Your task to perform on an android device: check storage Image 0: 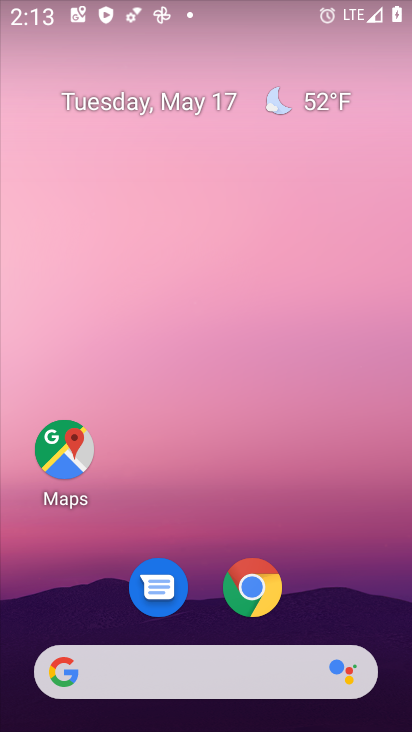
Step 0: drag from (346, 601) to (237, 76)
Your task to perform on an android device: check storage Image 1: 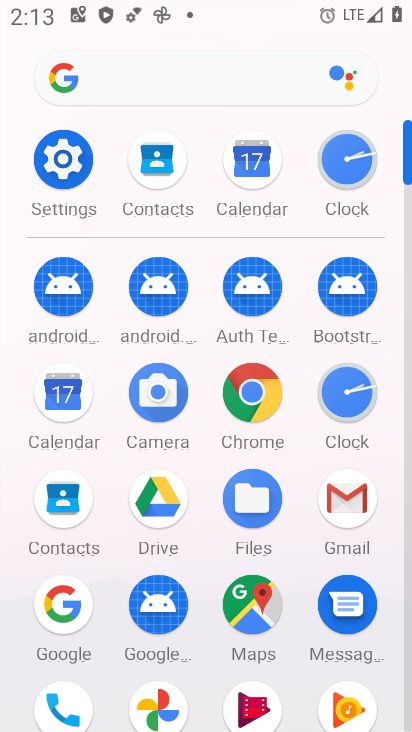
Step 1: click (67, 186)
Your task to perform on an android device: check storage Image 2: 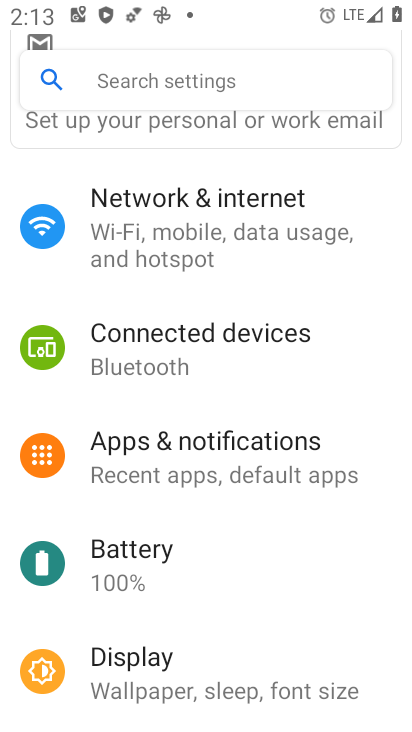
Step 2: drag from (164, 586) to (146, 299)
Your task to perform on an android device: check storage Image 3: 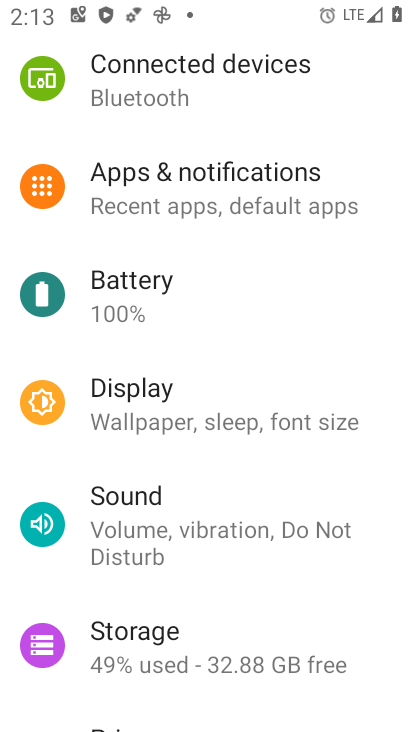
Step 3: click (197, 614)
Your task to perform on an android device: check storage Image 4: 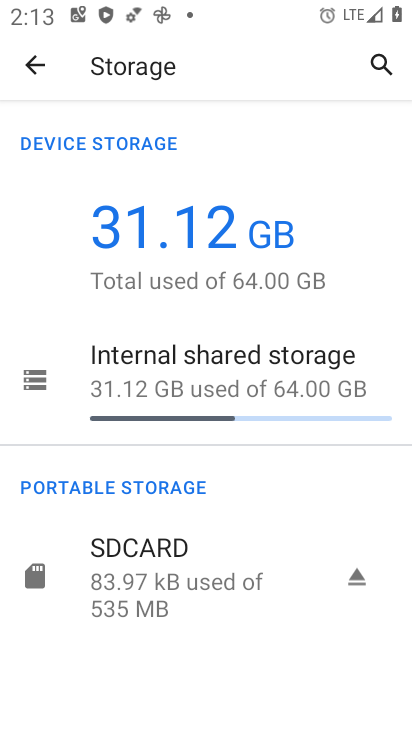
Step 4: task complete